Your task to perform on an android device: allow cookies in the chrome app Image 0: 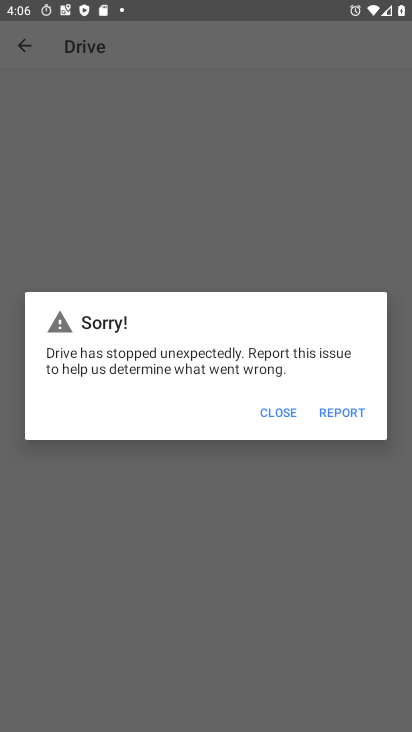
Step 0: drag from (199, 599) to (236, 278)
Your task to perform on an android device: allow cookies in the chrome app Image 1: 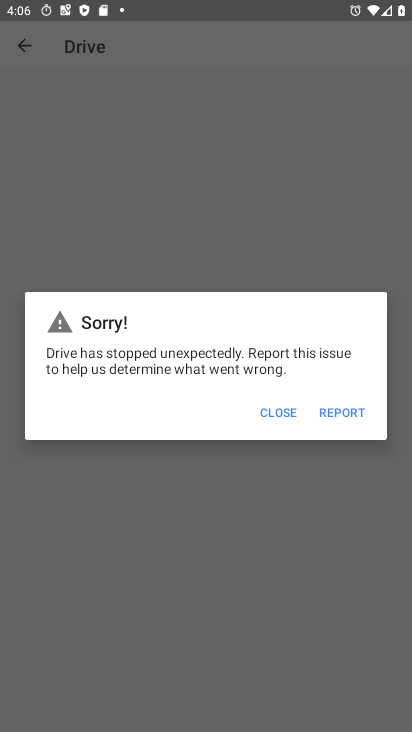
Step 1: press home button
Your task to perform on an android device: allow cookies in the chrome app Image 2: 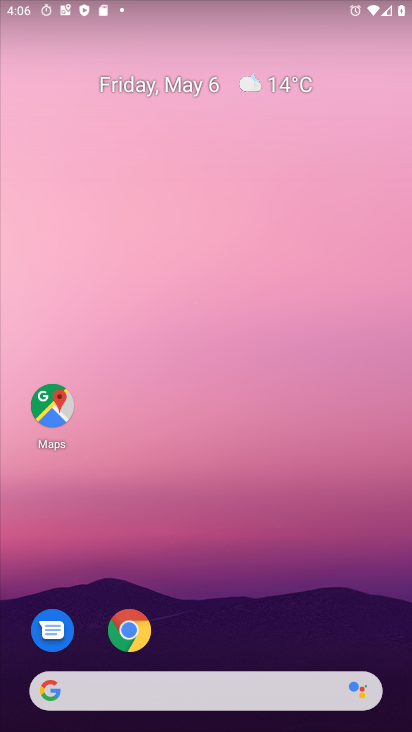
Step 2: click (121, 629)
Your task to perform on an android device: allow cookies in the chrome app Image 3: 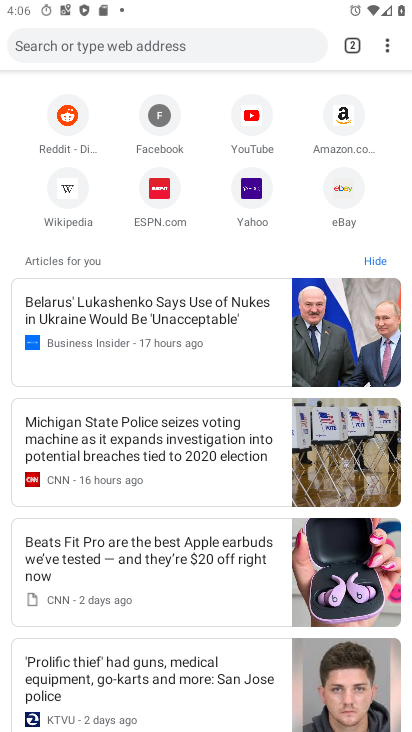
Step 3: click (392, 50)
Your task to perform on an android device: allow cookies in the chrome app Image 4: 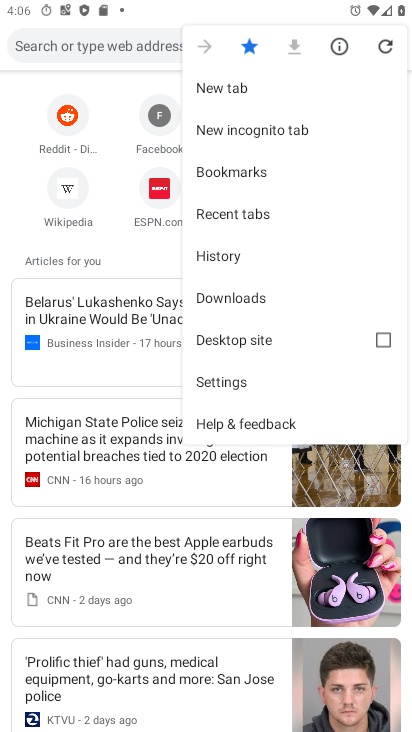
Step 4: click (261, 381)
Your task to perform on an android device: allow cookies in the chrome app Image 5: 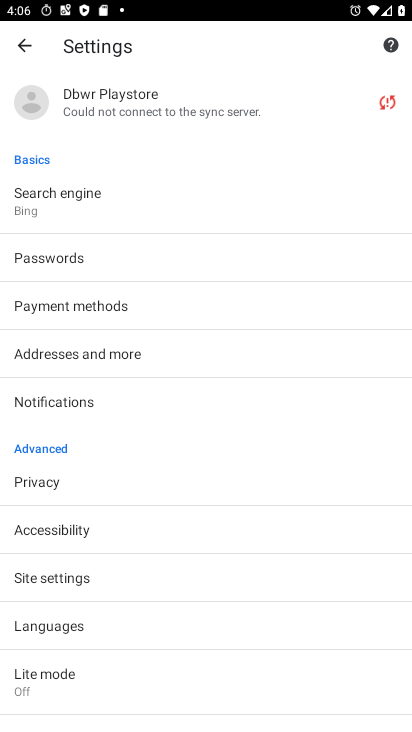
Step 5: click (261, 381)
Your task to perform on an android device: allow cookies in the chrome app Image 6: 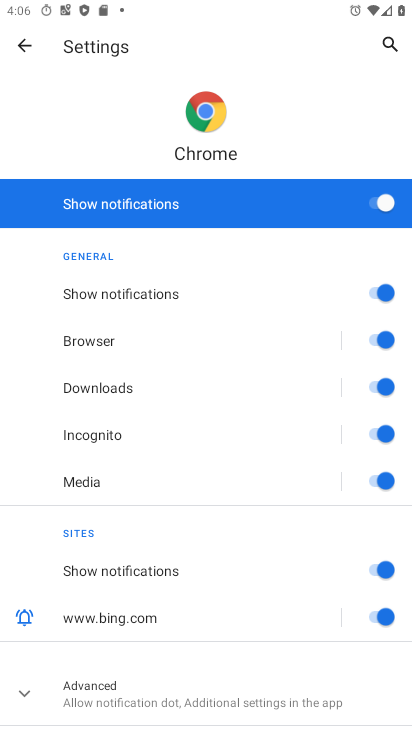
Step 6: click (20, 51)
Your task to perform on an android device: allow cookies in the chrome app Image 7: 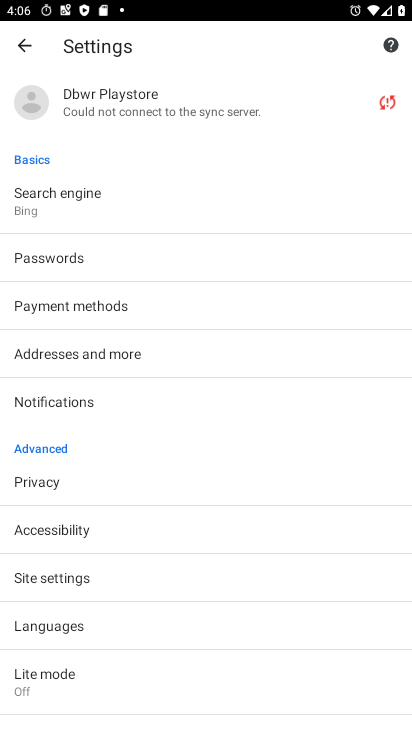
Step 7: click (20, 51)
Your task to perform on an android device: allow cookies in the chrome app Image 8: 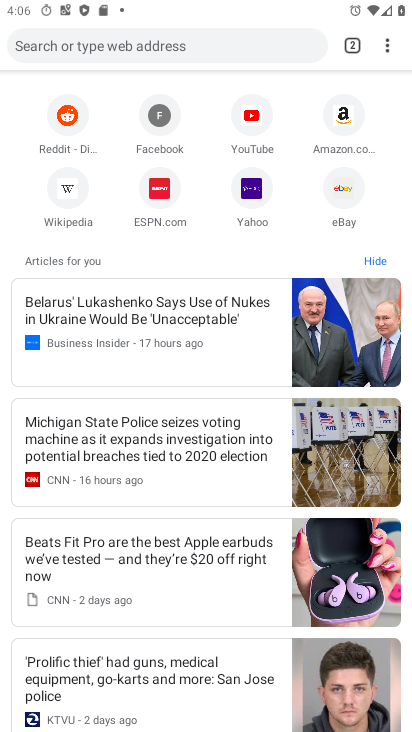
Step 8: click (380, 34)
Your task to perform on an android device: allow cookies in the chrome app Image 9: 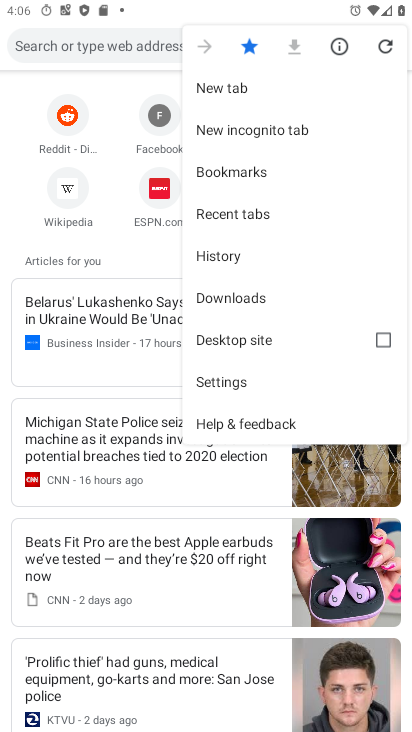
Step 9: click (222, 392)
Your task to perform on an android device: allow cookies in the chrome app Image 10: 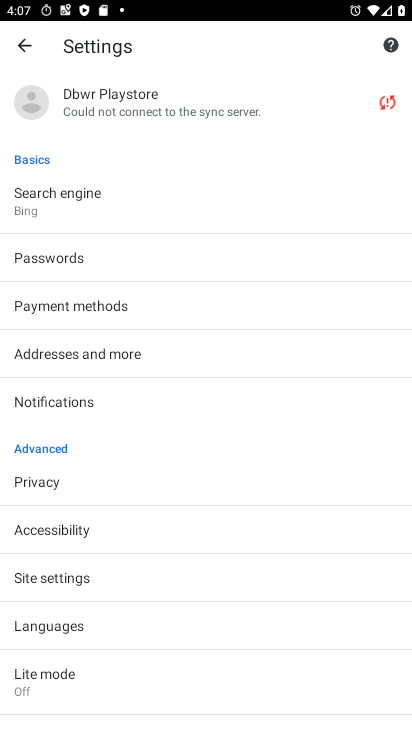
Step 10: drag from (58, 669) to (130, 242)
Your task to perform on an android device: allow cookies in the chrome app Image 11: 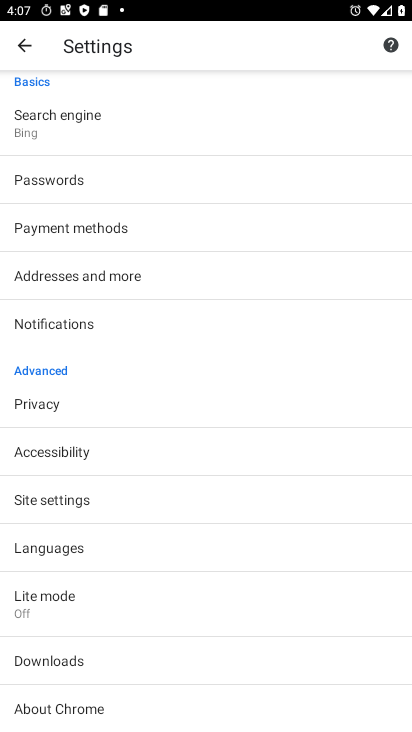
Step 11: drag from (81, 619) to (141, 231)
Your task to perform on an android device: allow cookies in the chrome app Image 12: 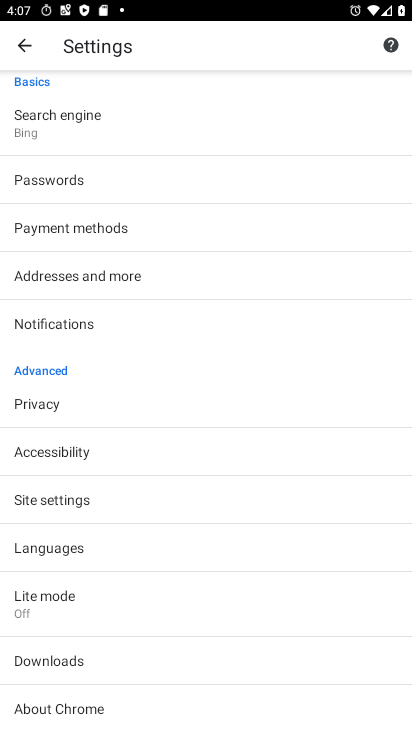
Step 12: click (72, 494)
Your task to perform on an android device: allow cookies in the chrome app Image 13: 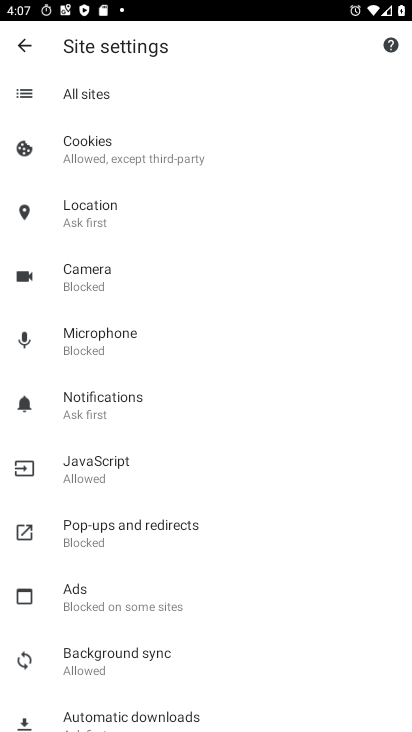
Step 13: click (153, 162)
Your task to perform on an android device: allow cookies in the chrome app Image 14: 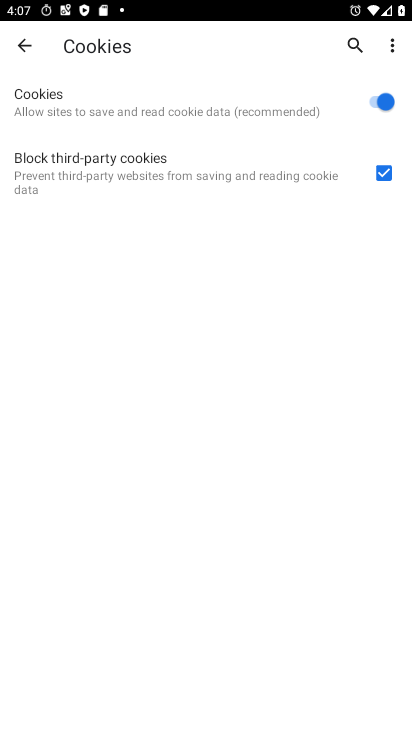
Step 14: task complete